Your task to perform on an android device: toggle location history Image 0: 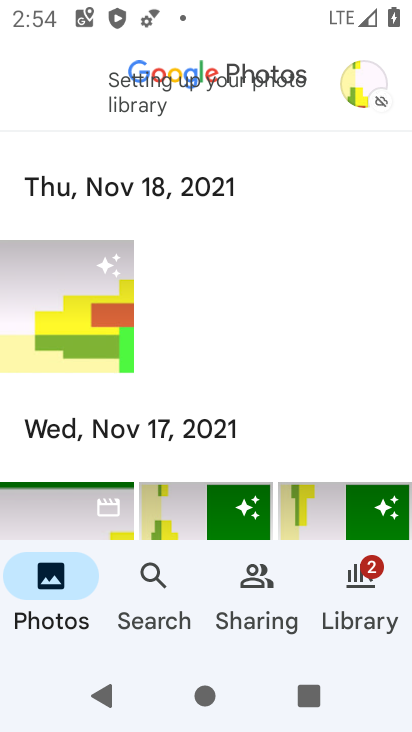
Step 0: press home button
Your task to perform on an android device: toggle location history Image 1: 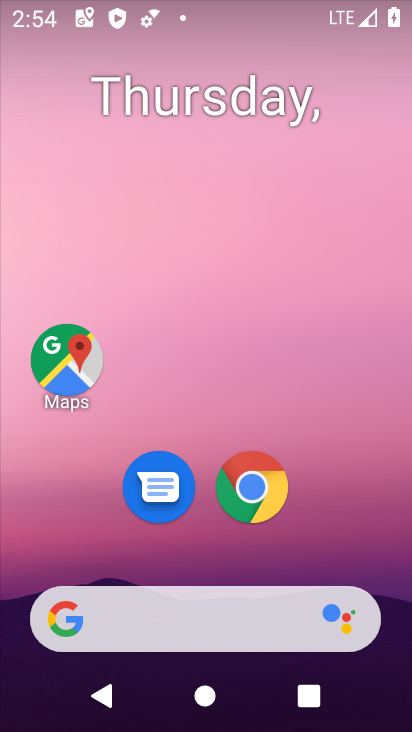
Step 1: drag from (360, 536) to (316, 108)
Your task to perform on an android device: toggle location history Image 2: 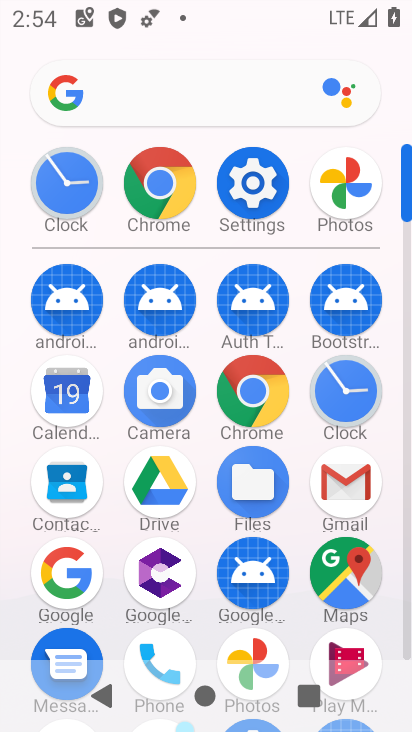
Step 2: click (266, 186)
Your task to perform on an android device: toggle location history Image 3: 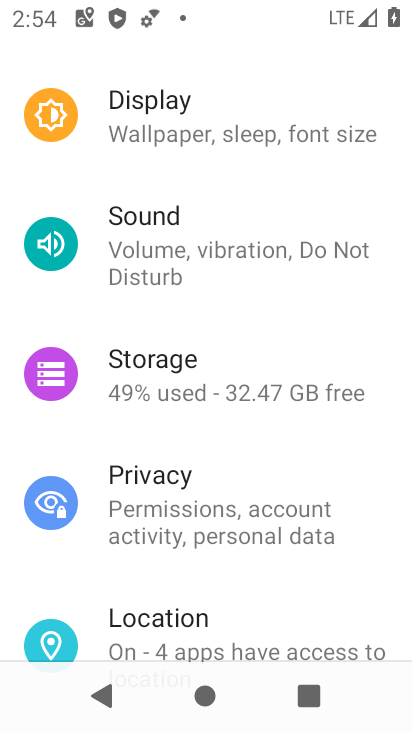
Step 3: click (187, 463)
Your task to perform on an android device: toggle location history Image 4: 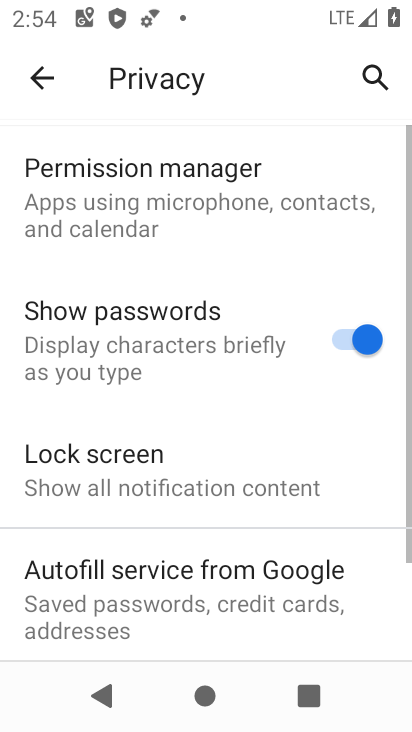
Step 4: drag from (203, 561) to (170, 178)
Your task to perform on an android device: toggle location history Image 5: 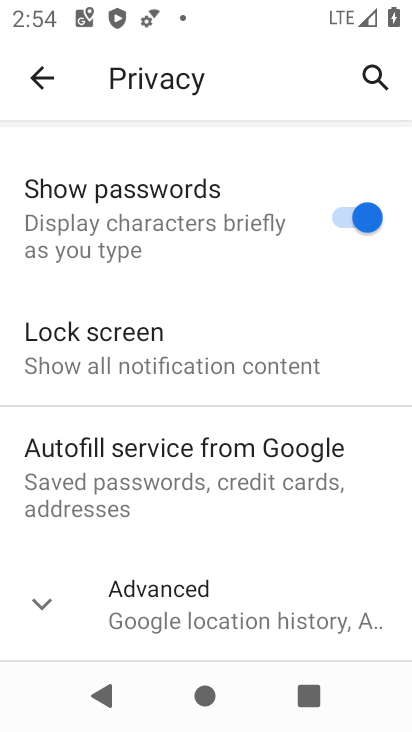
Step 5: click (173, 603)
Your task to perform on an android device: toggle location history Image 6: 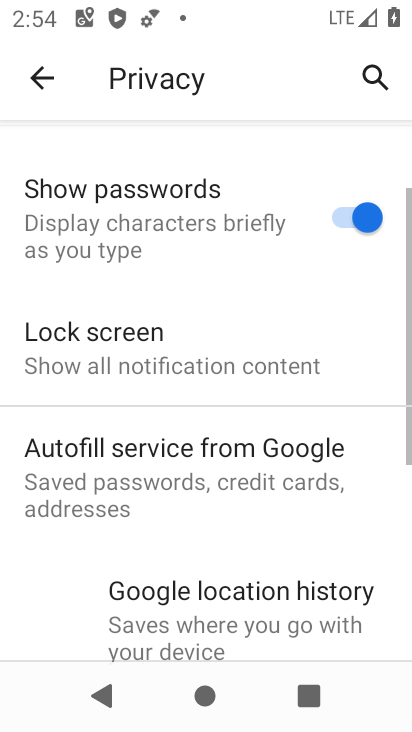
Step 6: drag from (207, 637) to (150, 313)
Your task to perform on an android device: toggle location history Image 7: 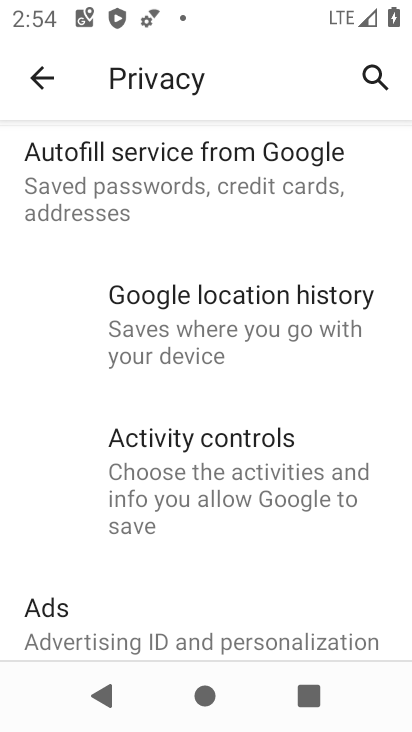
Step 7: drag from (196, 565) to (257, 239)
Your task to perform on an android device: toggle location history Image 8: 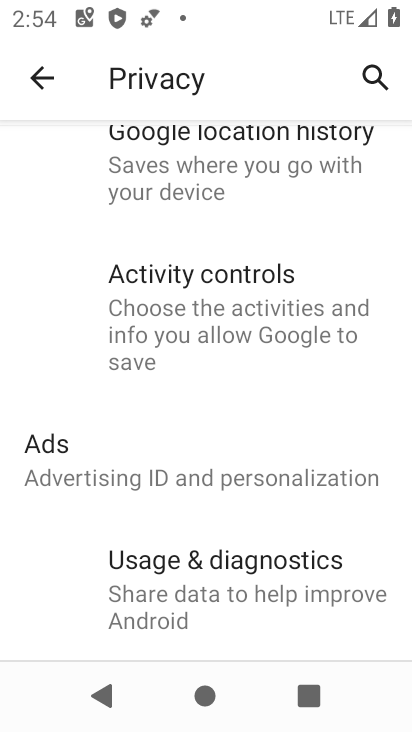
Step 8: drag from (262, 249) to (237, 584)
Your task to perform on an android device: toggle location history Image 9: 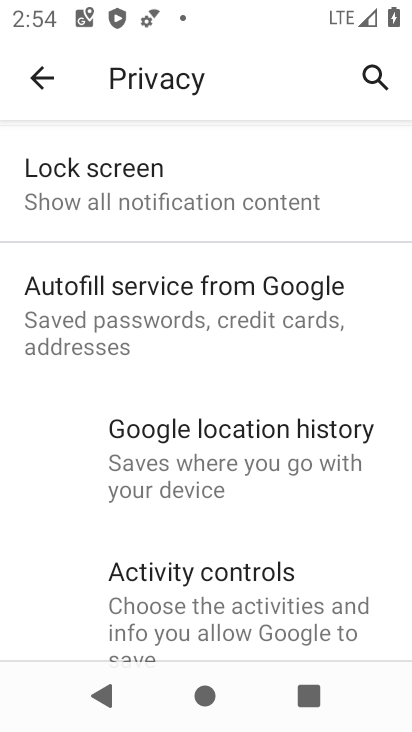
Step 9: drag from (223, 289) to (224, 581)
Your task to perform on an android device: toggle location history Image 10: 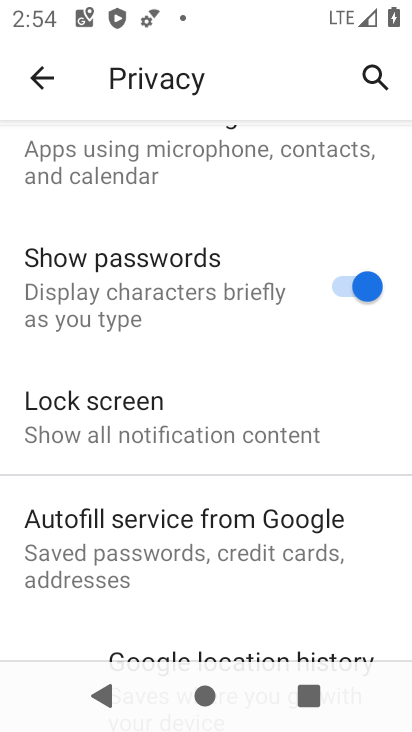
Step 10: click (31, 99)
Your task to perform on an android device: toggle location history Image 11: 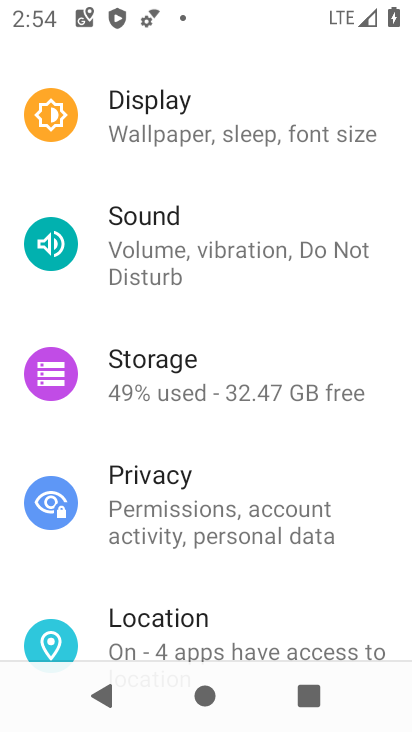
Step 11: click (182, 619)
Your task to perform on an android device: toggle location history Image 12: 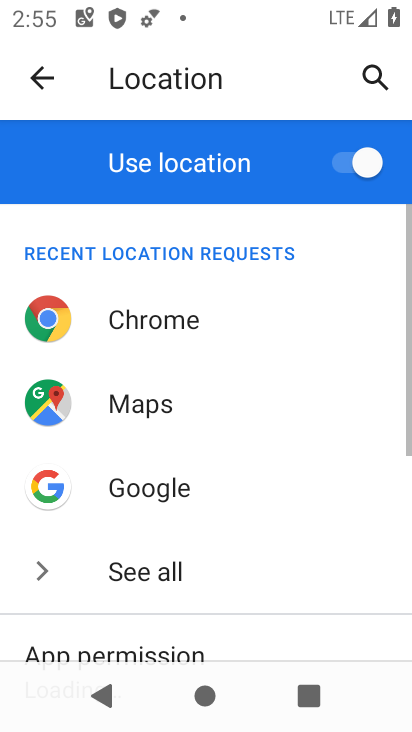
Step 12: drag from (182, 617) to (140, 204)
Your task to perform on an android device: toggle location history Image 13: 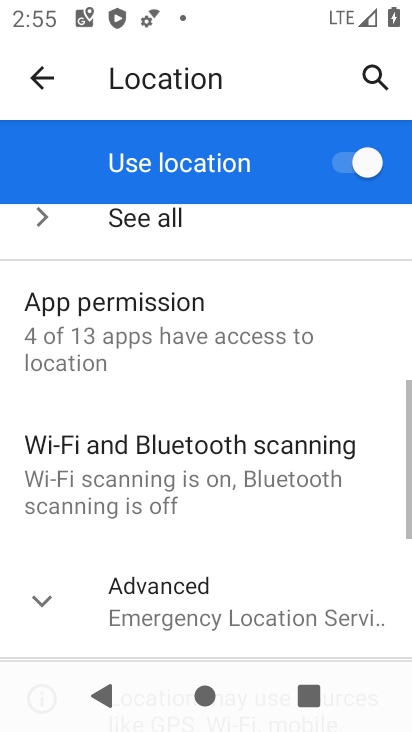
Step 13: click (211, 597)
Your task to perform on an android device: toggle location history Image 14: 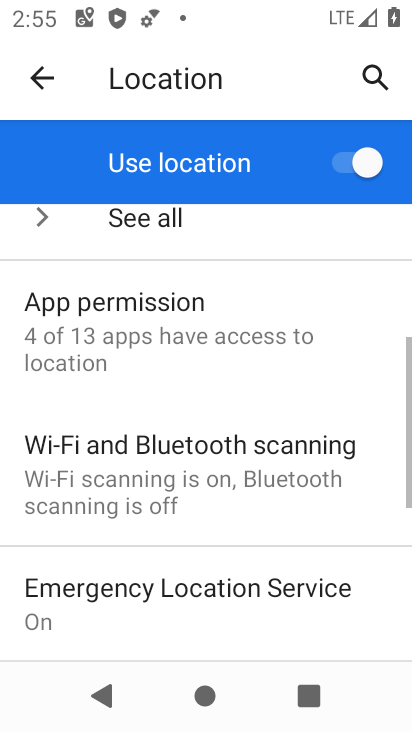
Step 14: drag from (211, 597) to (186, 299)
Your task to perform on an android device: toggle location history Image 15: 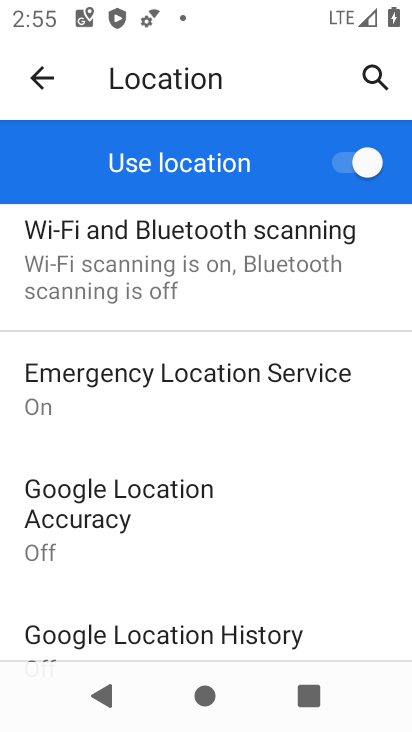
Step 15: drag from (189, 596) to (248, 390)
Your task to perform on an android device: toggle location history Image 16: 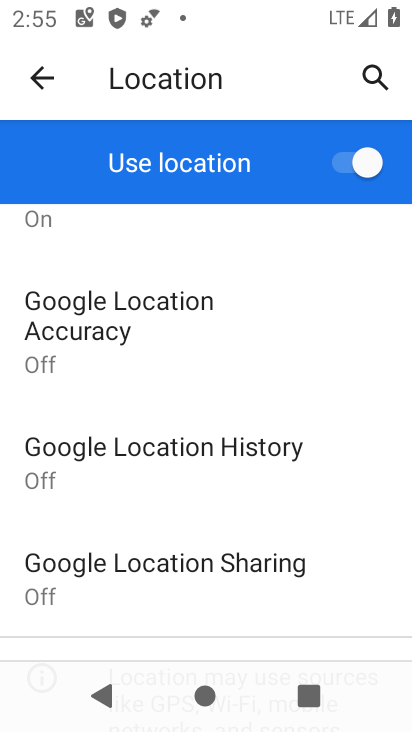
Step 16: click (180, 452)
Your task to perform on an android device: toggle location history Image 17: 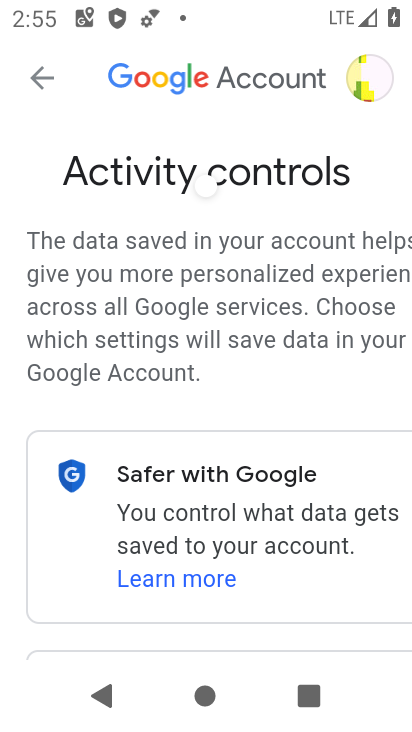
Step 17: drag from (295, 542) to (240, 174)
Your task to perform on an android device: toggle location history Image 18: 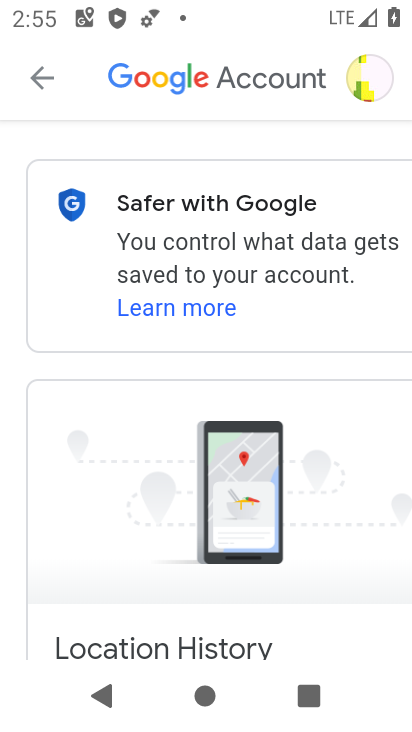
Step 18: drag from (217, 484) to (176, 163)
Your task to perform on an android device: toggle location history Image 19: 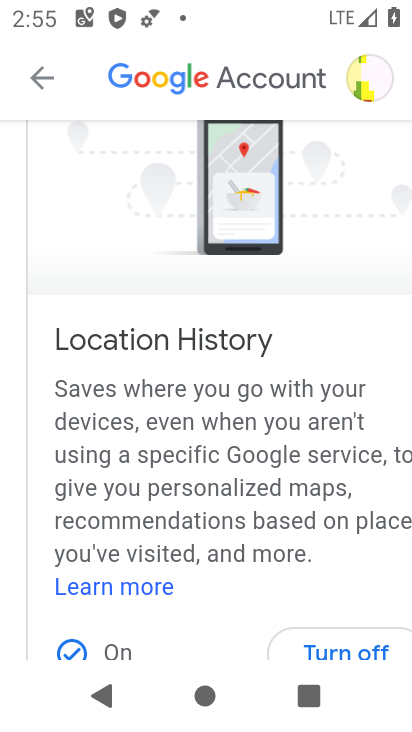
Step 19: drag from (179, 532) to (167, 167)
Your task to perform on an android device: toggle location history Image 20: 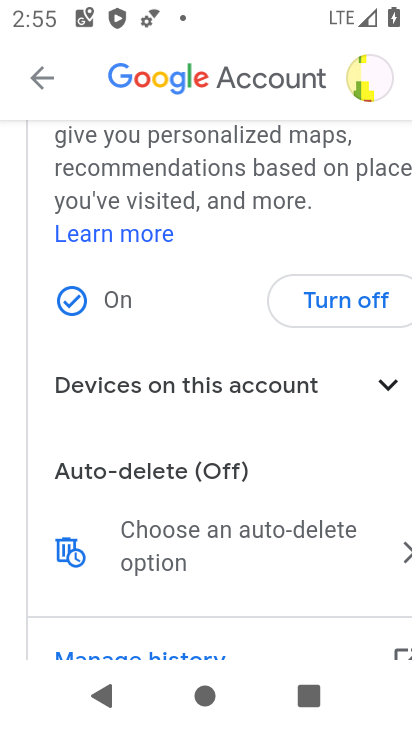
Step 20: click (324, 305)
Your task to perform on an android device: toggle location history Image 21: 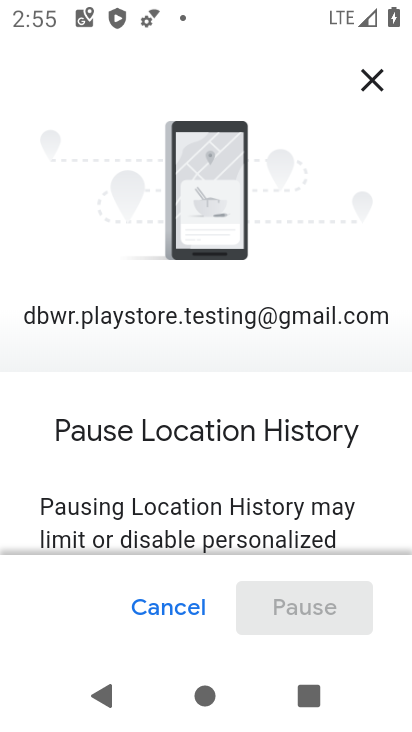
Step 21: drag from (317, 498) to (336, 164)
Your task to perform on an android device: toggle location history Image 22: 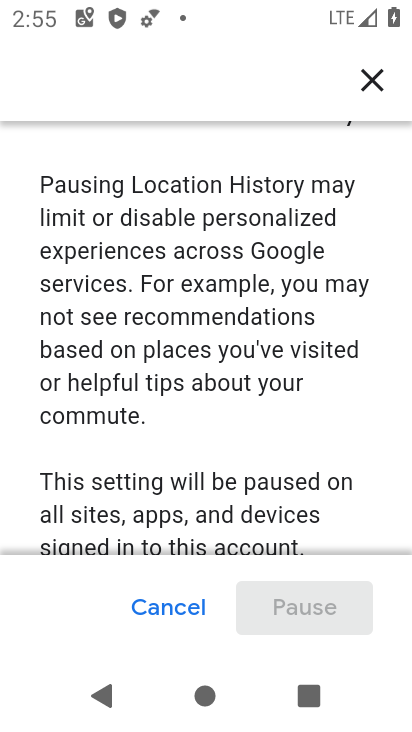
Step 22: drag from (289, 467) to (300, 204)
Your task to perform on an android device: toggle location history Image 23: 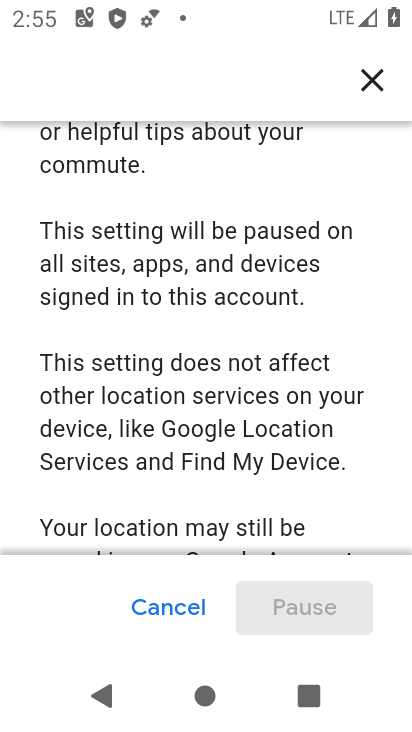
Step 23: drag from (283, 471) to (273, 149)
Your task to perform on an android device: toggle location history Image 24: 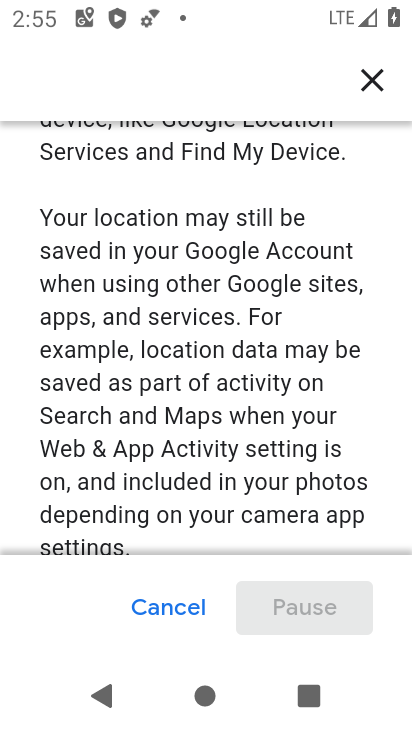
Step 24: drag from (280, 477) to (298, 143)
Your task to perform on an android device: toggle location history Image 25: 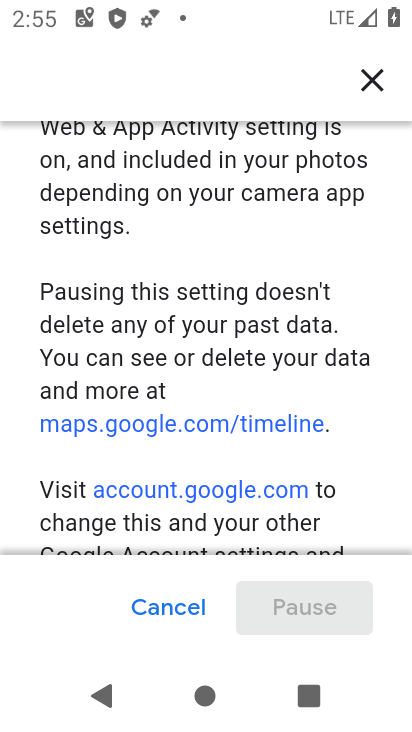
Step 25: drag from (254, 478) to (265, 162)
Your task to perform on an android device: toggle location history Image 26: 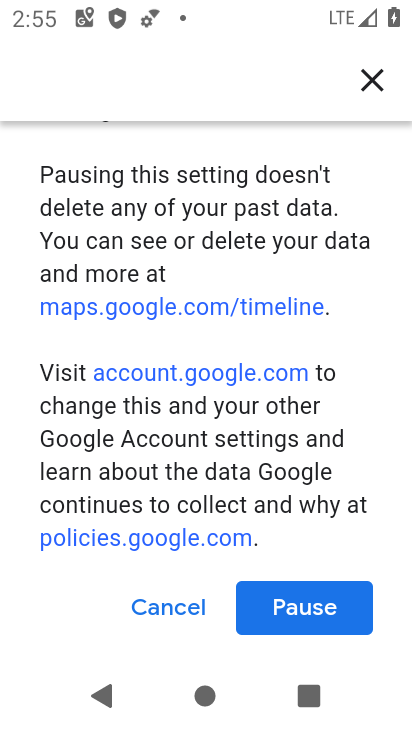
Step 26: click (327, 604)
Your task to perform on an android device: toggle location history Image 27: 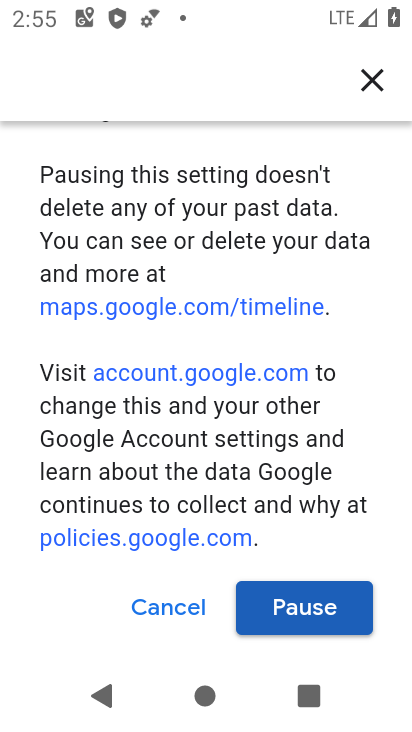
Step 27: click (327, 602)
Your task to perform on an android device: toggle location history Image 28: 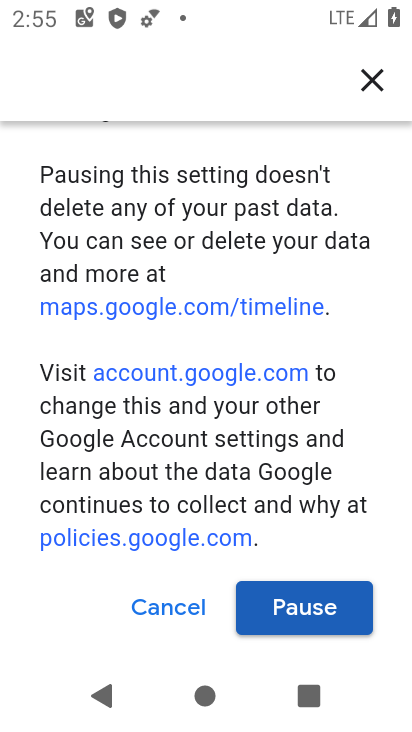
Step 28: click (327, 602)
Your task to perform on an android device: toggle location history Image 29: 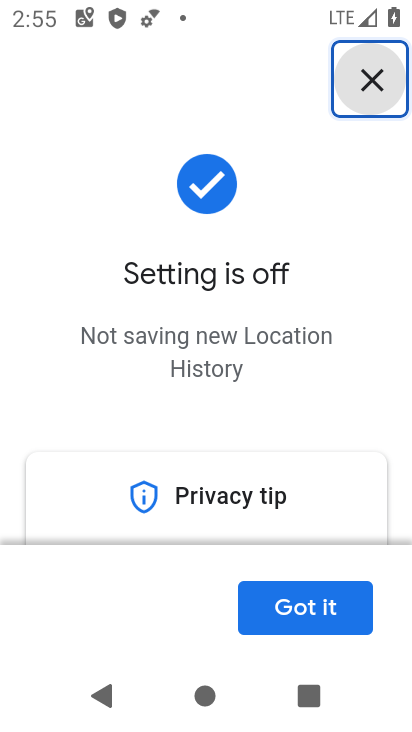
Step 29: click (317, 591)
Your task to perform on an android device: toggle location history Image 30: 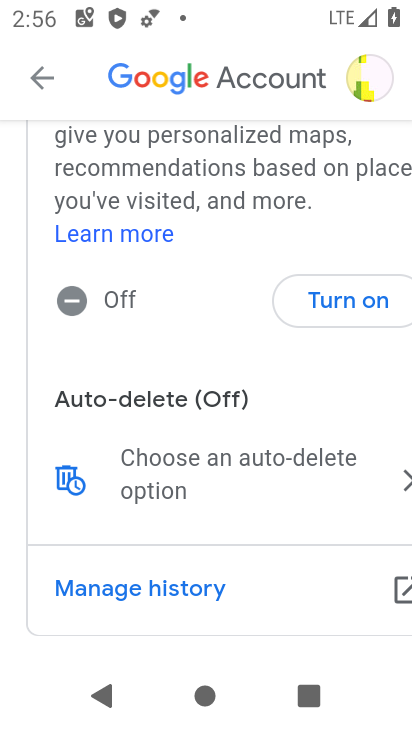
Step 30: task complete